Your task to perform on an android device: Open internet settings Image 0: 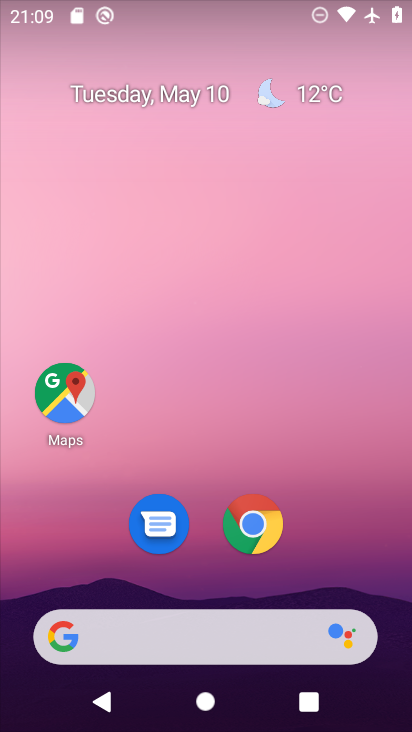
Step 0: drag from (325, 514) to (242, 9)
Your task to perform on an android device: Open internet settings Image 1: 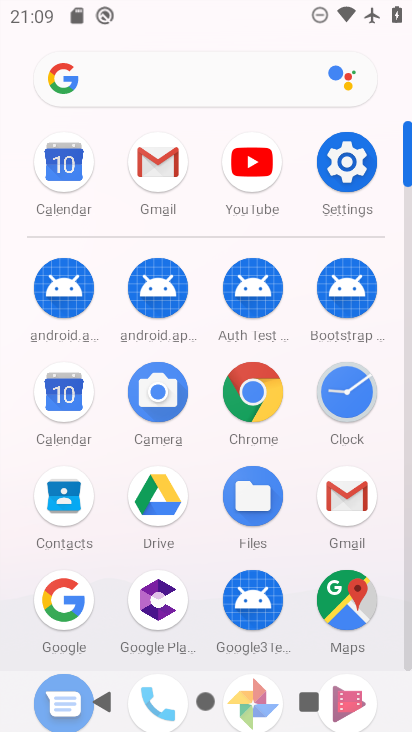
Step 1: click (353, 151)
Your task to perform on an android device: Open internet settings Image 2: 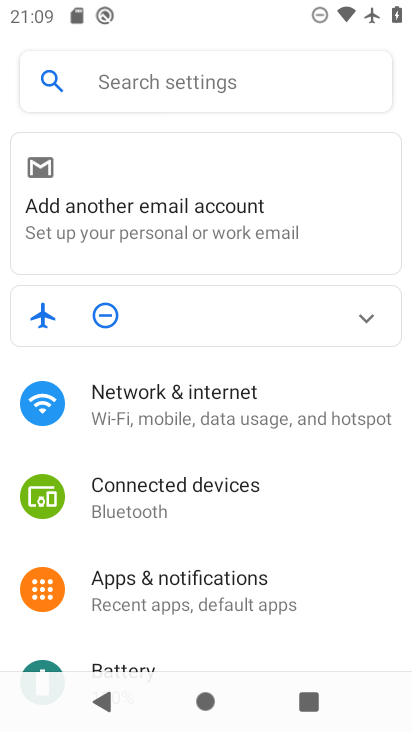
Step 2: click (196, 404)
Your task to perform on an android device: Open internet settings Image 3: 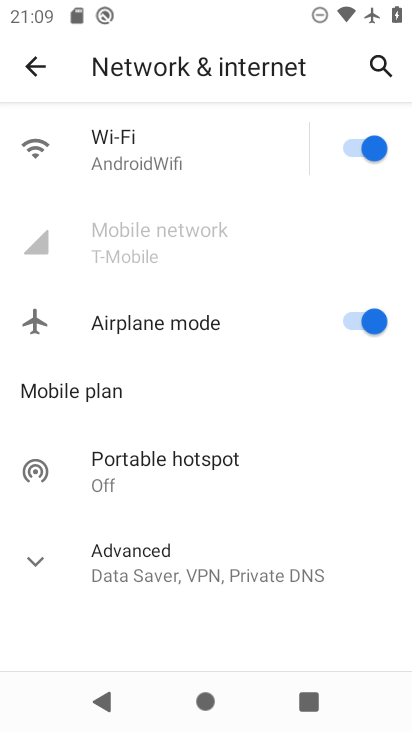
Step 3: task complete